Your task to perform on an android device: Search for "panasonic triple a" on costco.com, select the first entry, and add it to the cart. Image 0: 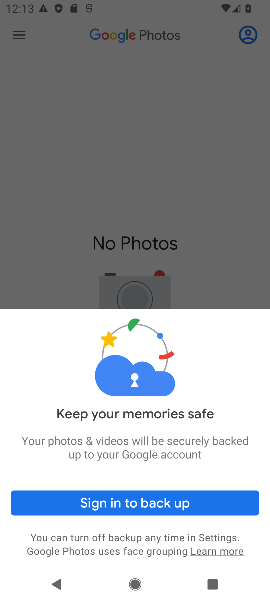
Step 0: press home button
Your task to perform on an android device: Search for "panasonic triple a" on costco.com, select the first entry, and add it to the cart. Image 1: 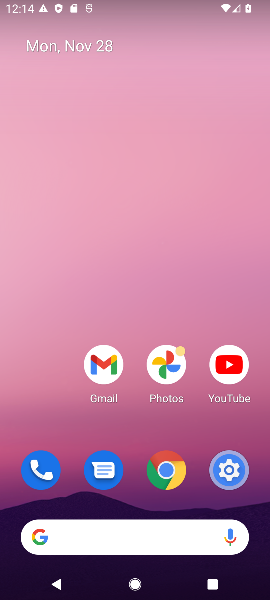
Step 1: click (122, 548)
Your task to perform on an android device: Search for "panasonic triple a" on costco.com, select the first entry, and add it to the cart. Image 2: 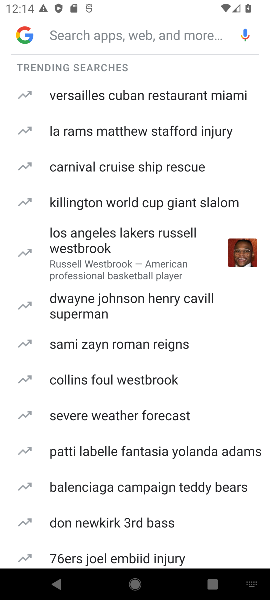
Step 2: type "costco.com"
Your task to perform on an android device: Search for "panasonic triple a" on costco.com, select the first entry, and add it to the cart. Image 3: 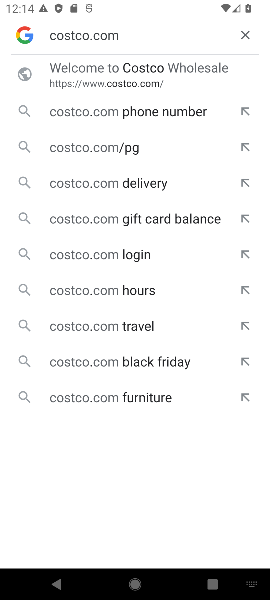
Step 3: click (131, 94)
Your task to perform on an android device: Search for "panasonic triple a" on costco.com, select the first entry, and add it to the cart. Image 4: 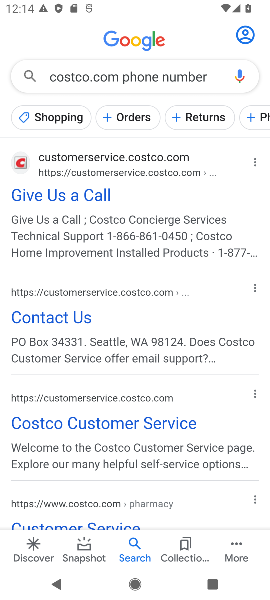
Step 4: click (85, 196)
Your task to perform on an android device: Search for "panasonic triple a" on costco.com, select the first entry, and add it to the cart. Image 5: 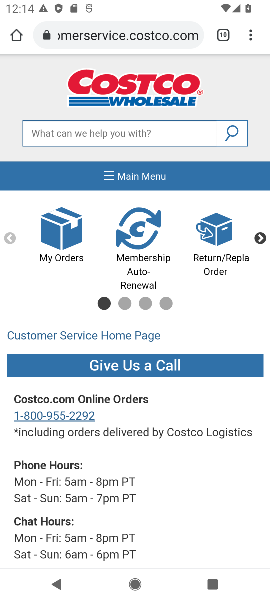
Step 5: task complete